Your task to perform on an android device: Turn off the flashlight Image 0: 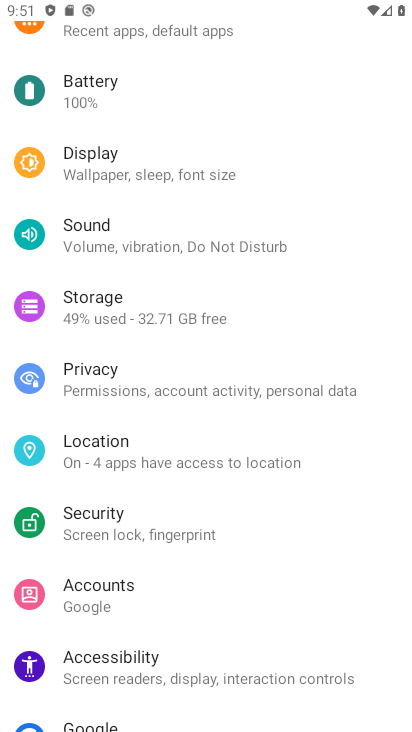
Step 0: press home button
Your task to perform on an android device: Turn off the flashlight Image 1: 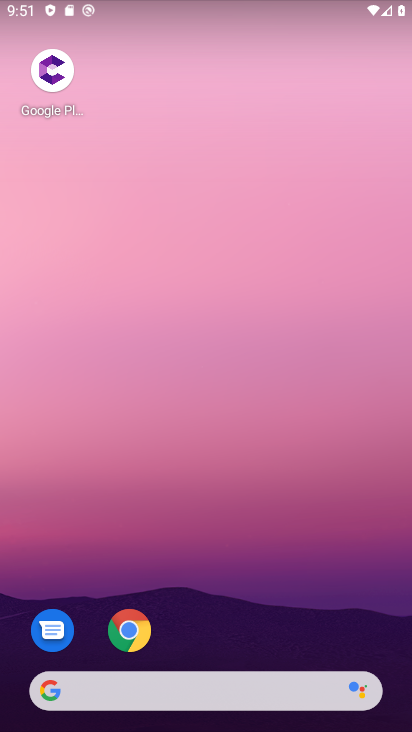
Step 1: drag from (260, 654) to (251, 64)
Your task to perform on an android device: Turn off the flashlight Image 2: 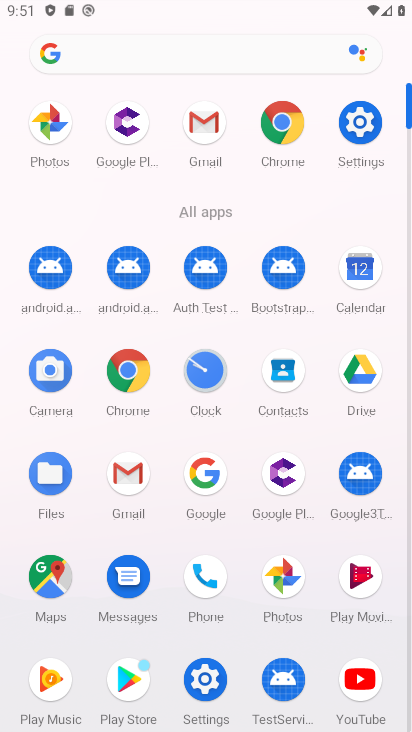
Step 2: click (359, 132)
Your task to perform on an android device: Turn off the flashlight Image 3: 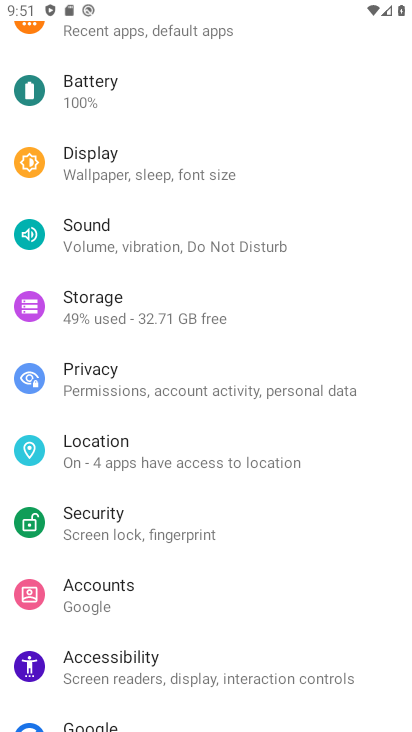
Step 3: task complete